Your task to perform on an android device: Go to privacy settings Image 0: 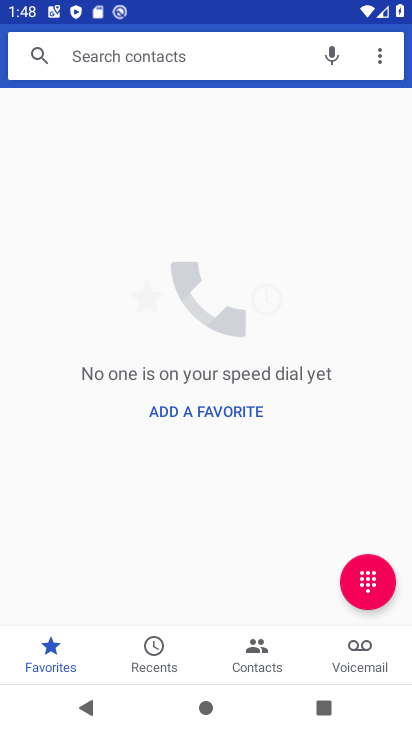
Step 0: press home button
Your task to perform on an android device: Go to privacy settings Image 1: 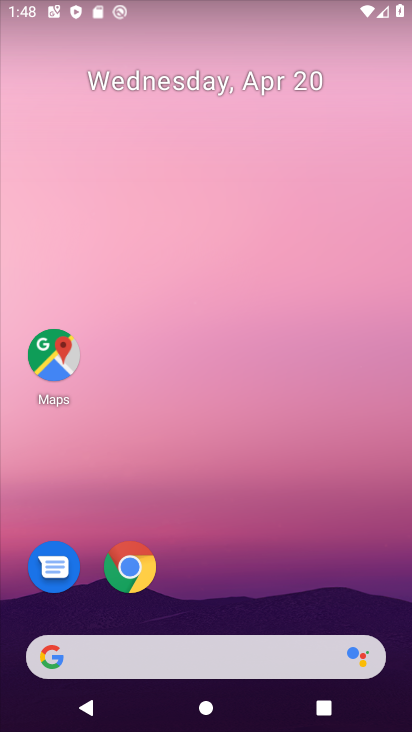
Step 1: drag from (330, 562) to (360, 193)
Your task to perform on an android device: Go to privacy settings Image 2: 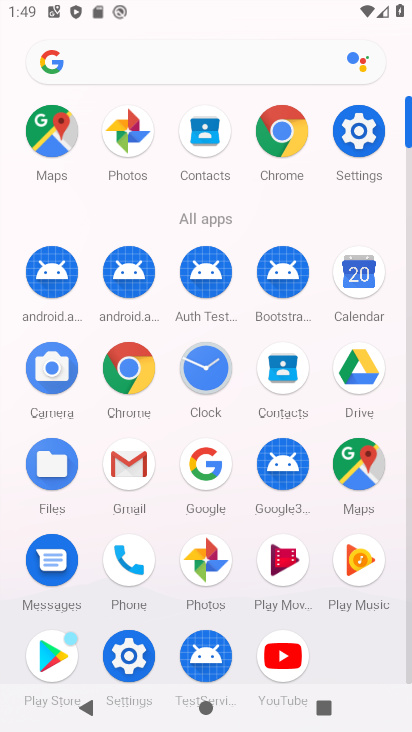
Step 2: click (146, 655)
Your task to perform on an android device: Go to privacy settings Image 3: 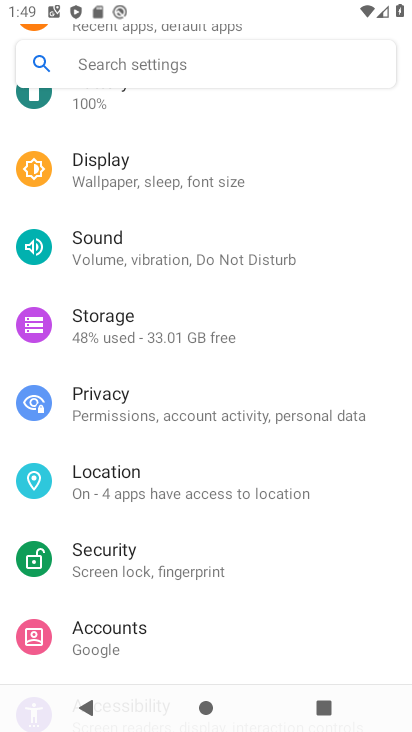
Step 3: click (162, 422)
Your task to perform on an android device: Go to privacy settings Image 4: 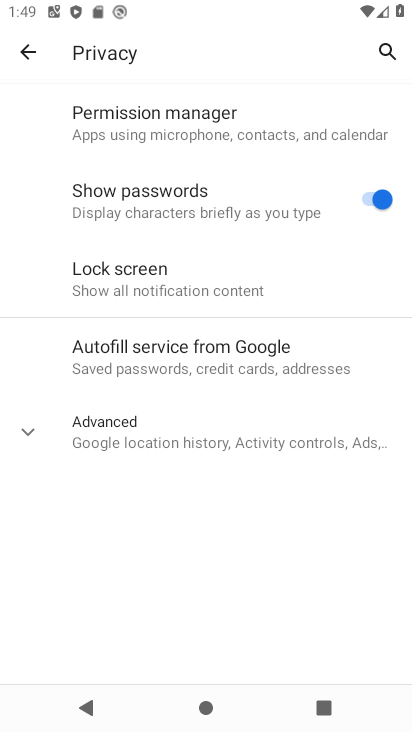
Step 4: task complete